Your task to perform on an android device: Go to wifi settings Image 0: 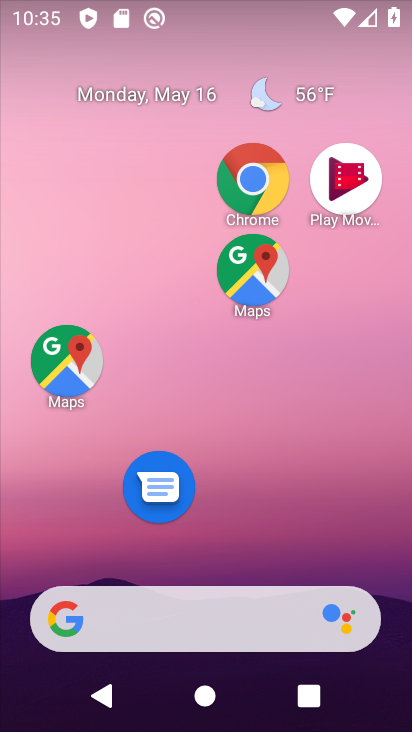
Step 0: drag from (196, 155) to (307, 0)
Your task to perform on an android device: Go to wifi settings Image 1: 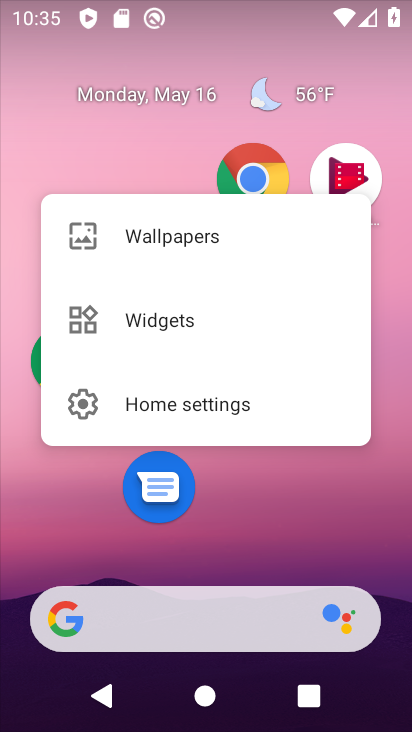
Step 1: click (286, 536)
Your task to perform on an android device: Go to wifi settings Image 2: 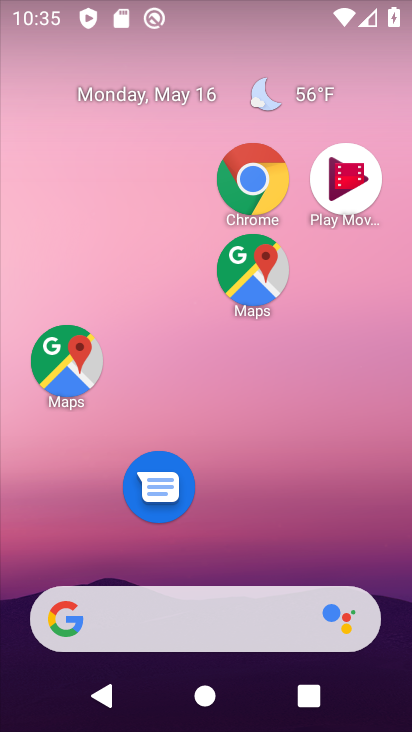
Step 2: drag from (220, 491) to (228, 63)
Your task to perform on an android device: Go to wifi settings Image 3: 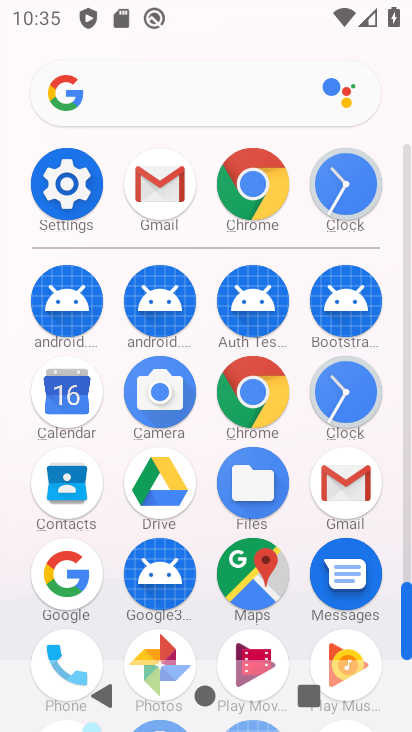
Step 3: click (51, 172)
Your task to perform on an android device: Go to wifi settings Image 4: 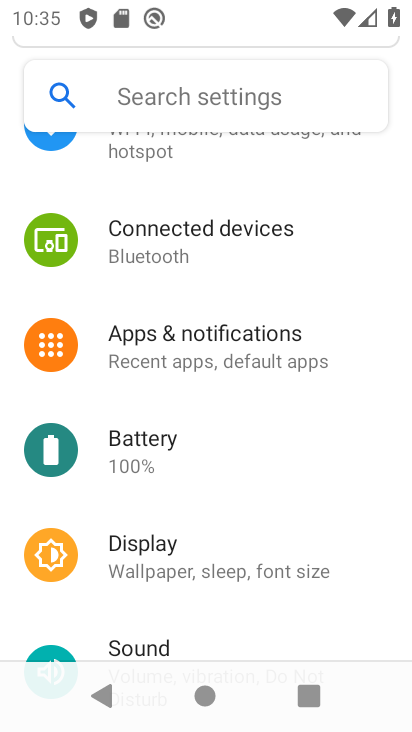
Step 4: click (118, 158)
Your task to perform on an android device: Go to wifi settings Image 5: 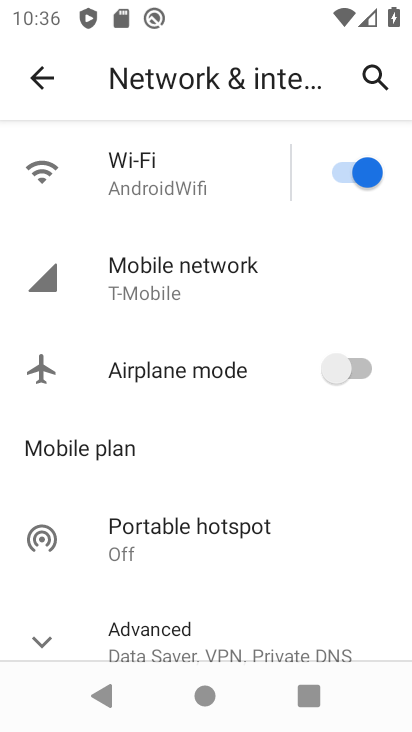
Step 5: click (179, 193)
Your task to perform on an android device: Go to wifi settings Image 6: 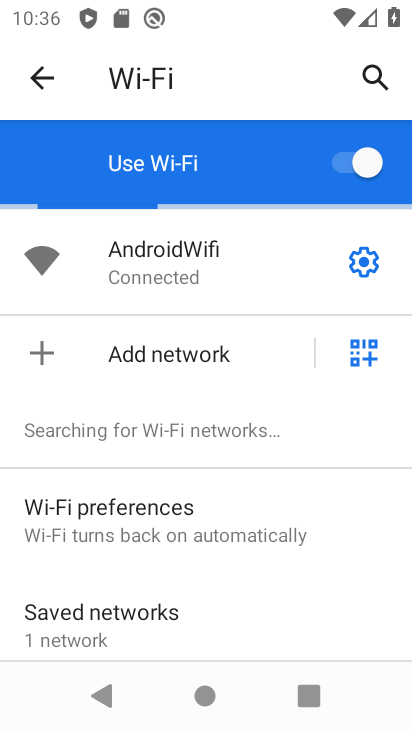
Step 6: task complete